Your task to perform on an android device: see sites visited before in the chrome app Image 0: 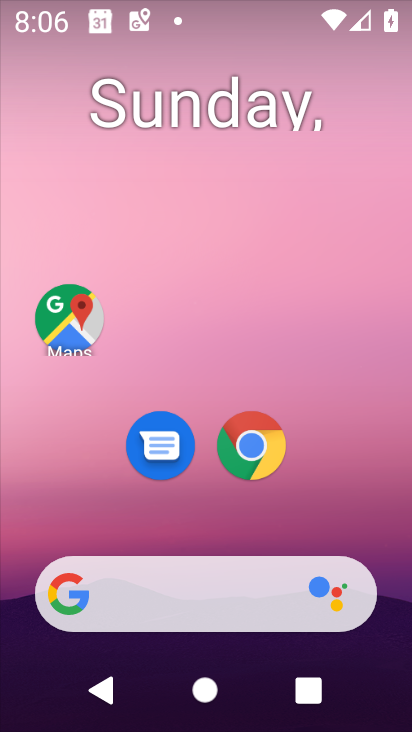
Step 0: click (261, 436)
Your task to perform on an android device: see sites visited before in the chrome app Image 1: 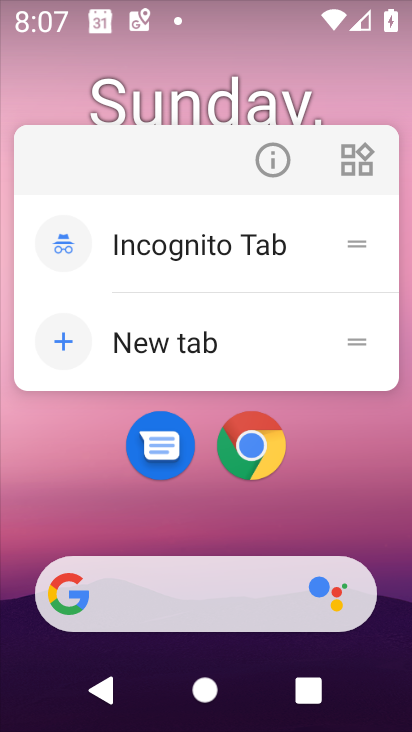
Step 1: click (246, 450)
Your task to perform on an android device: see sites visited before in the chrome app Image 2: 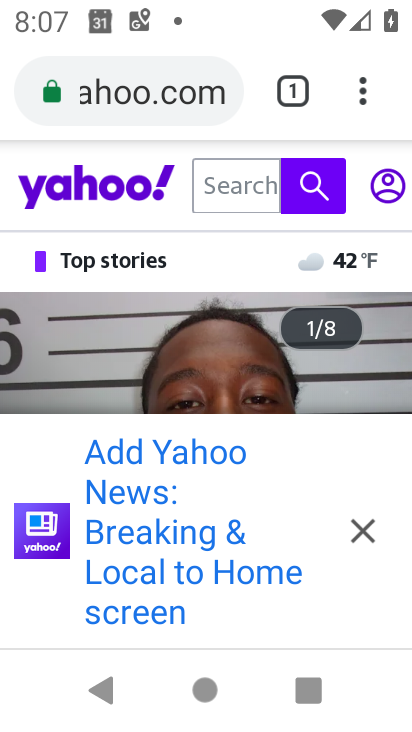
Step 2: click (290, 98)
Your task to perform on an android device: see sites visited before in the chrome app Image 3: 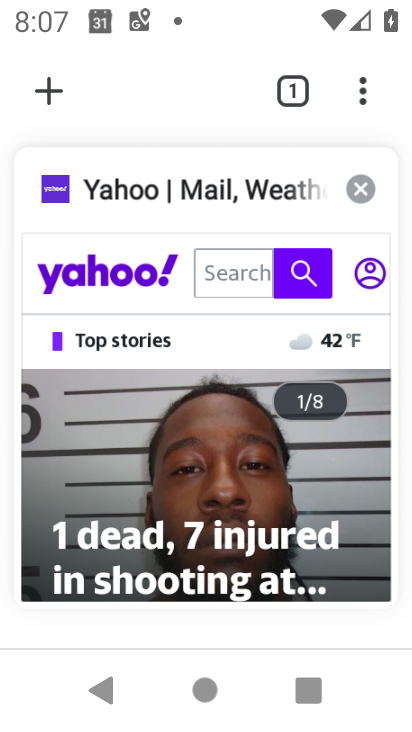
Step 3: click (265, 361)
Your task to perform on an android device: see sites visited before in the chrome app Image 4: 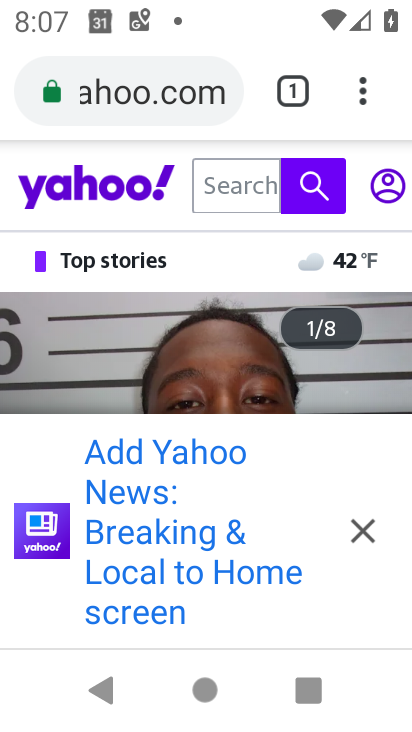
Step 4: click (360, 100)
Your task to perform on an android device: see sites visited before in the chrome app Image 5: 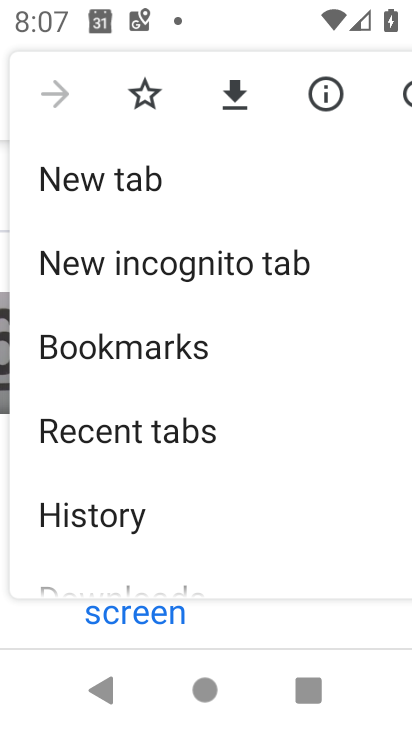
Step 5: click (105, 504)
Your task to perform on an android device: see sites visited before in the chrome app Image 6: 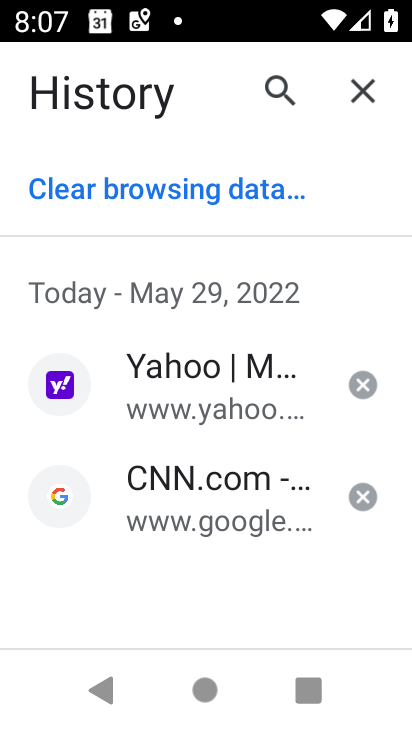
Step 6: task complete